Your task to perform on an android device: change your default location settings in chrome Image 0: 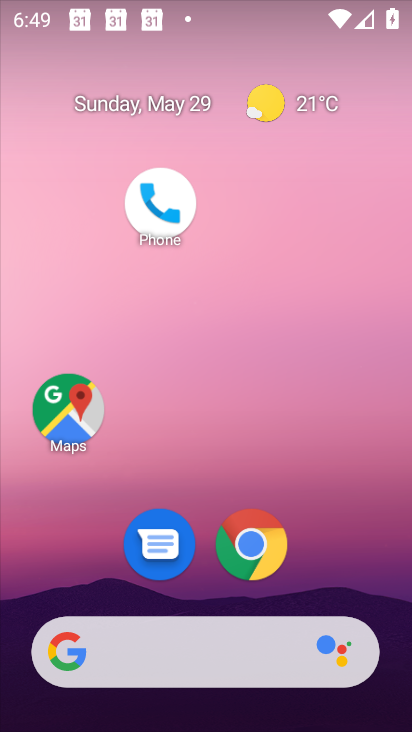
Step 0: click (253, 556)
Your task to perform on an android device: change your default location settings in chrome Image 1: 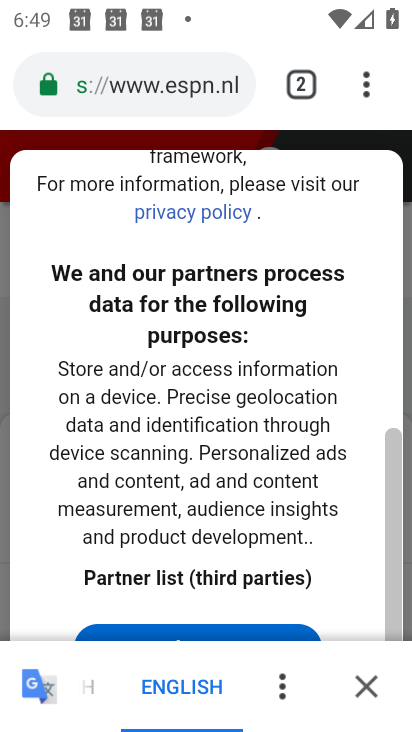
Step 1: click (371, 88)
Your task to perform on an android device: change your default location settings in chrome Image 2: 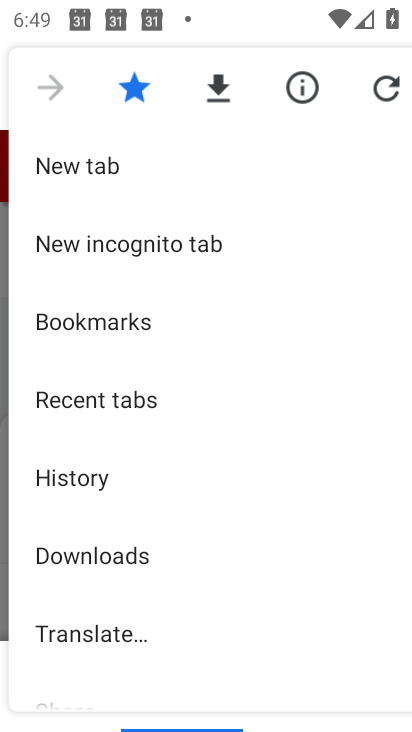
Step 2: drag from (214, 377) to (220, 54)
Your task to perform on an android device: change your default location settings in chrome Image 3: 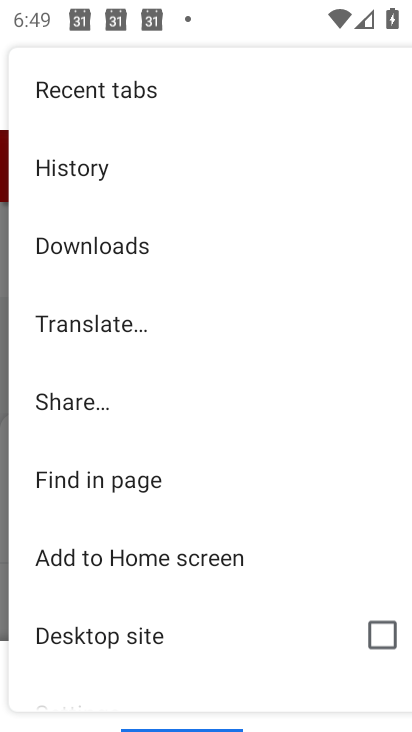
Step 3: drag from (211, 607) to (241, 249)
Your task to perform on an android device: change your default location settings in chrome Image 4: 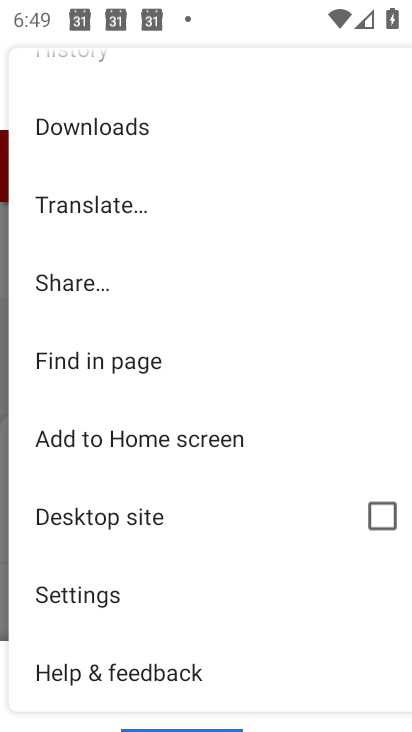
Step 4: click (79, 599)
Your task to perform on an android device: change your default location settings in chrome Image 5: 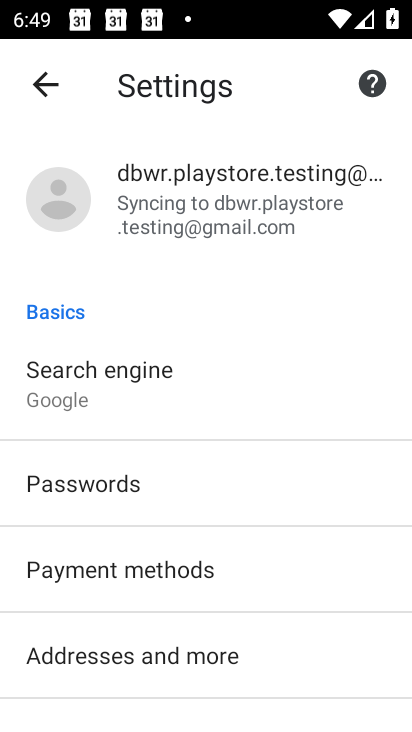
Step 5: drag from (263, 563) to (271, 220)
Your task to perform on an android device: change your default location settings in chrome Image 6: 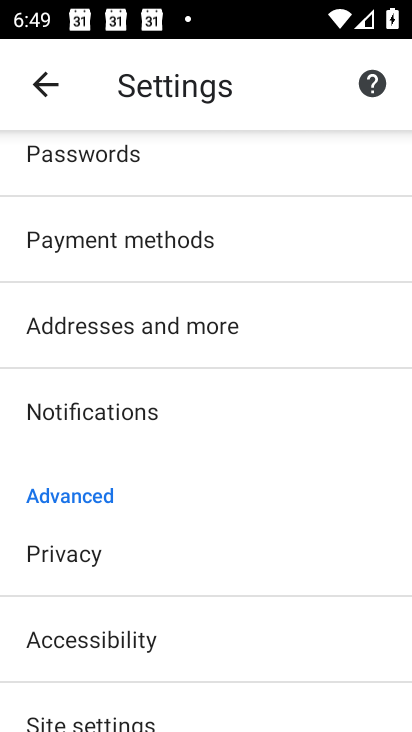
Step 6: drag from (248, 562) to (226, 89)
Your task to perform on an android device: change your default location settings in chrome Image 7: 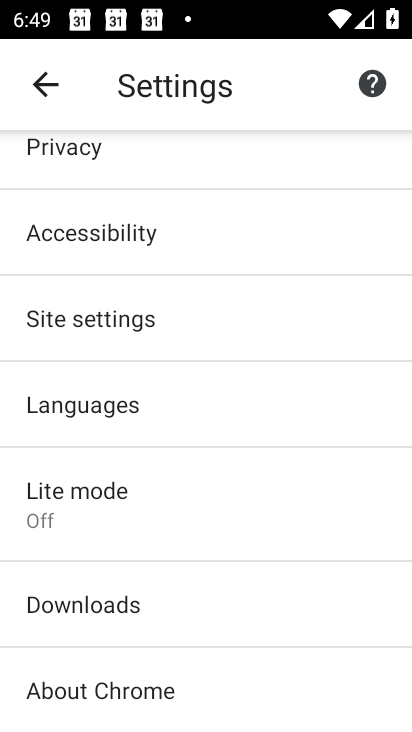
Step 7: click (86, 319)
Your task to perform on an android device: change your default location settings in chrome Image 8: 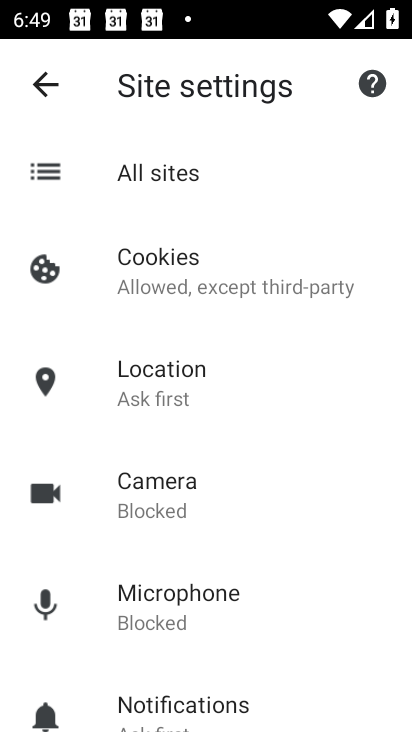
Step 8: click (145, 366)
Your task to perform on an android device: change your default location settings in chrome Image 9: 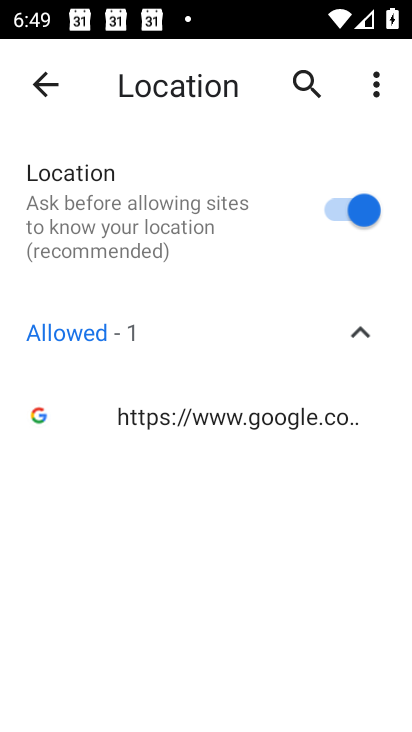
Step 9: click (342, 212)
Your task to perform on an android device: change your default location settings in chrome Image 10: 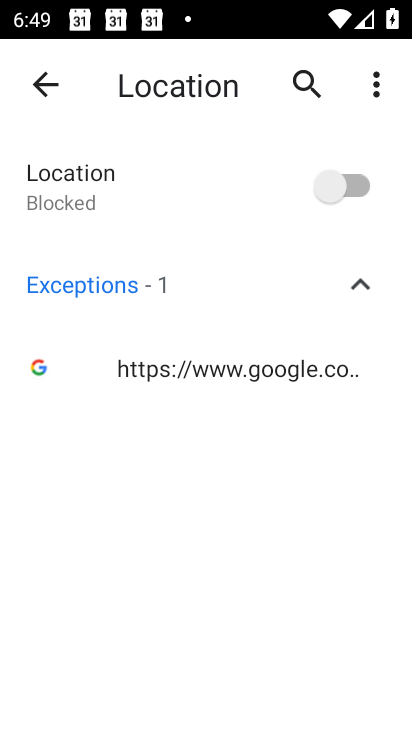
Step 10: task complete